Your task to perform on an android device: Open location settings Image 0: 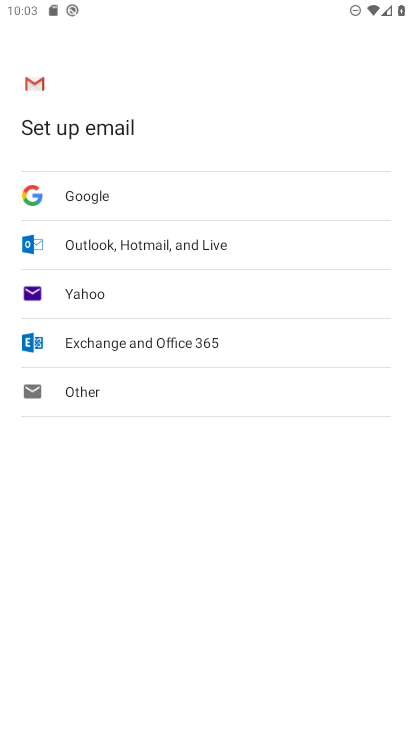
Step 0: press home button
Your task to perform on an android device: Open location settings Image 1: 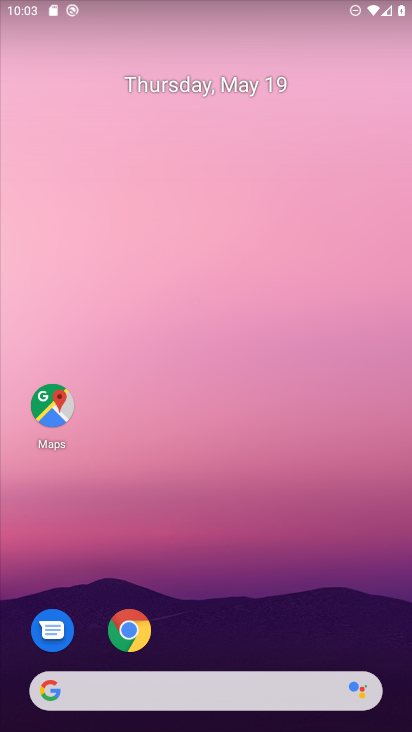
Step 1: drag from (364, 598) to (316, 89)
Your task to perform on an android device: Open location settings Image 2: 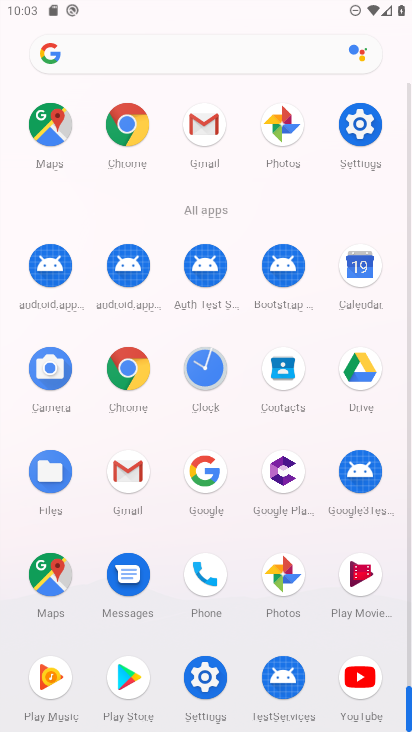
Step 2: click (366, 110)
Your task to perform on an android device: Open location settings Image 3: 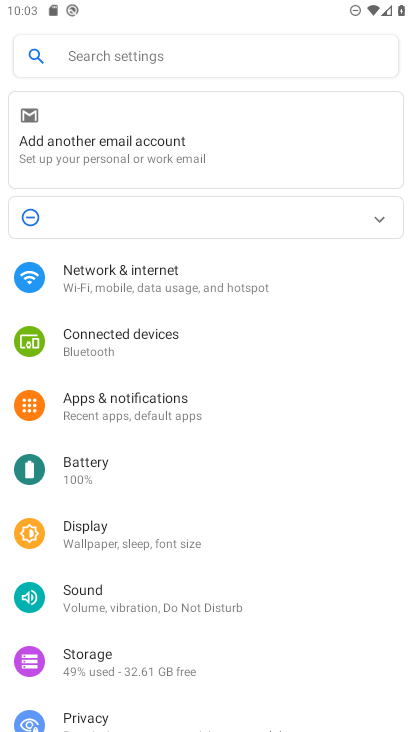
Step 3: drag from (159, 634) to (210, 367)
Your task to perform on an android device: Open location settings Image 4: 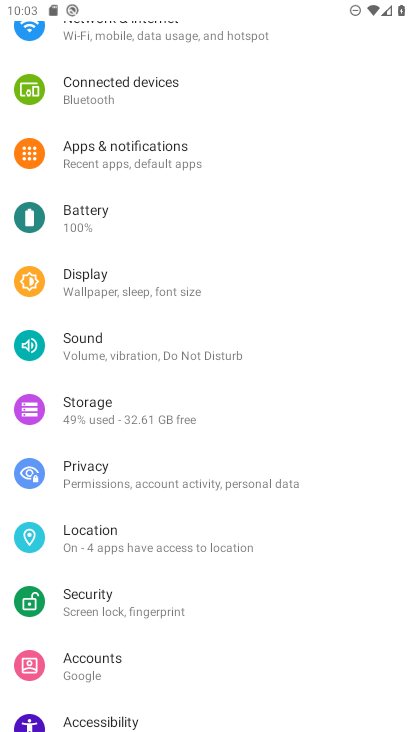
Step 4: click (126, 531)
Your task to perform on an android device: Open location settings Image 5: 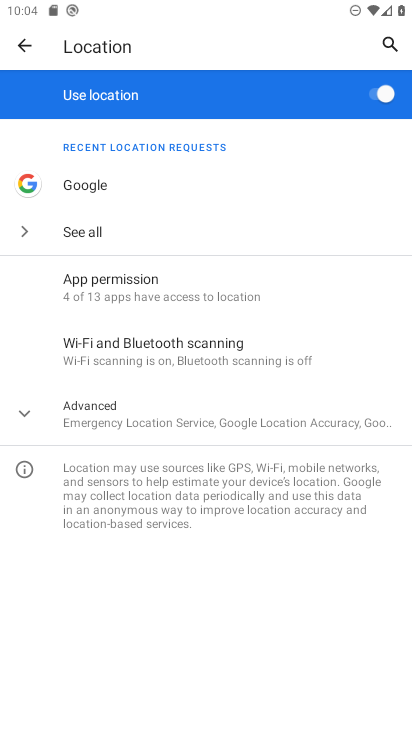
Step 5: click (207, 400)
Your task to perform on an android device: Open location settings Image 6: 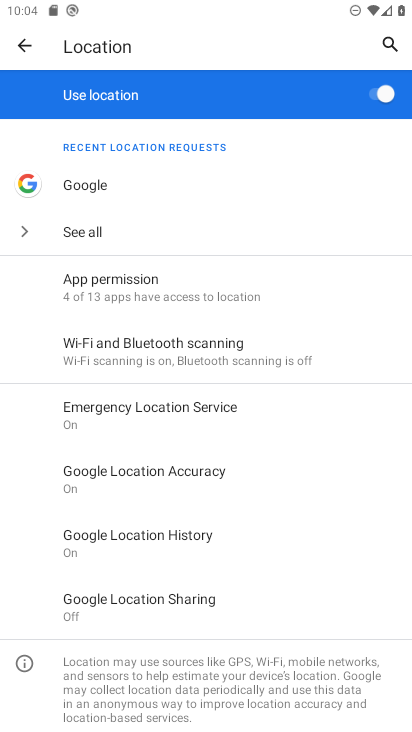
Step 6: task complete